Your task to perform on an android device: turn on wifi Image 0: 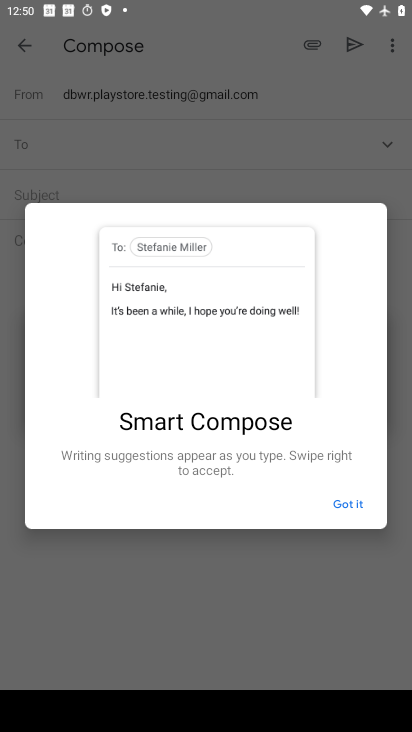
Step 0: press home button
Your task to perform on an android device: turn on wifi Image 1: 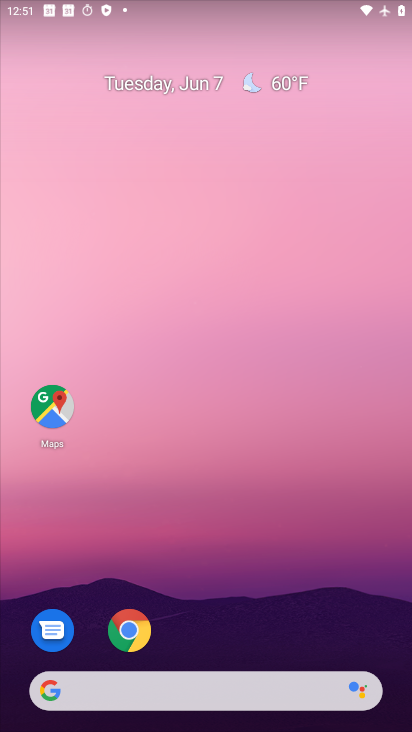
Step 1: task complete